Your task to perform on an android device: Open Chrome and go to settings Image 0: 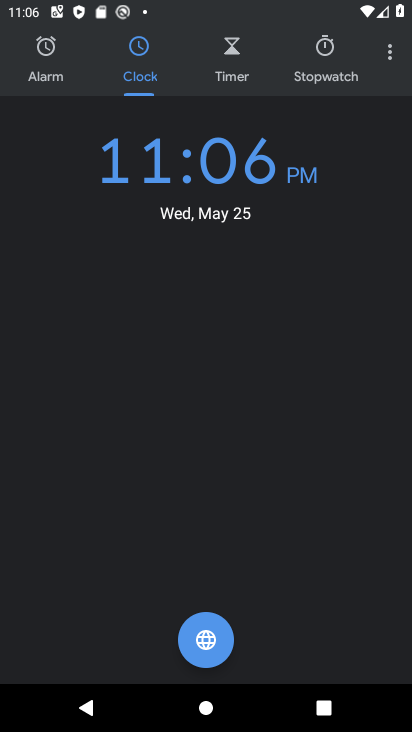
Step 0: press home button
Your task to perform on an android device: Open Chrome and go to settings Image 1: 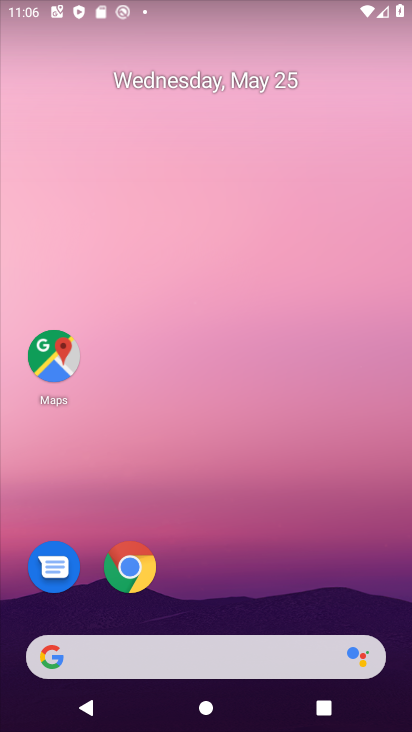
Step 1: click (133, 564)
Your task to perform on an android device: Open Chrome and go to settings Image 2: 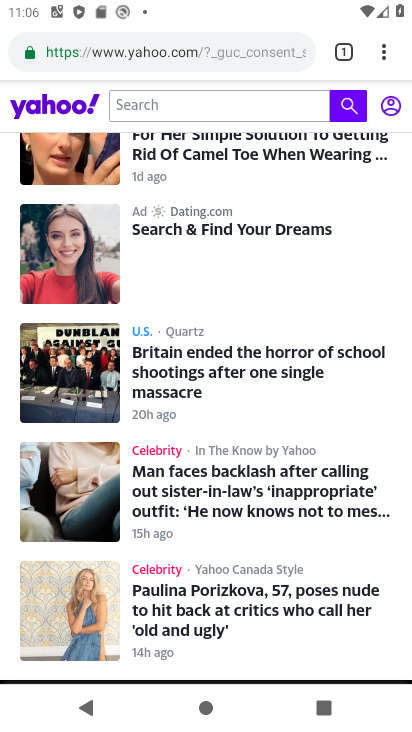
Step 2: click (384, 65)
Your task to perform on an android device: Open Chrome and go to settings Image 3: 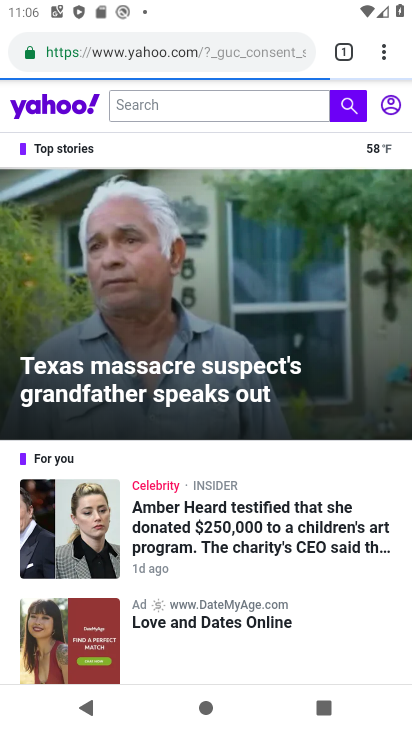
Step 3: click (385, 46)
Your task to perform on an android device: Open Chrome and go to settings Image 4: 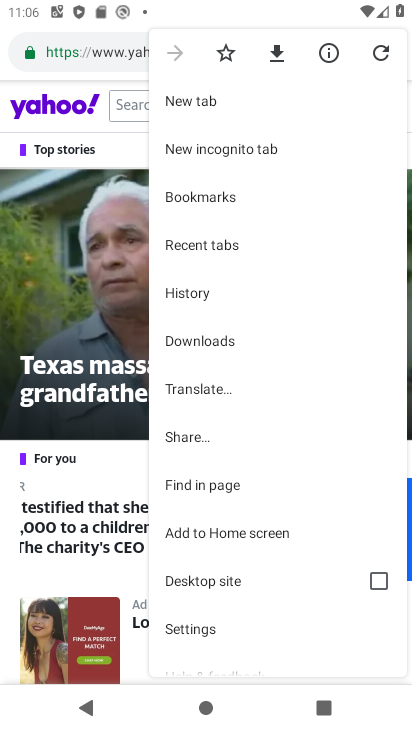
Step 4: click (201, 627)
Your task to perform on an android device: Open Chrome and go to settings Image 5: 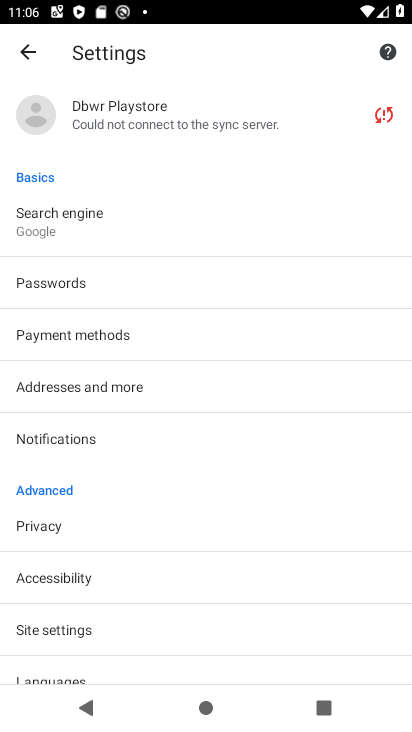
Step 5: task complete